Your task to perform on an android device: Open settings Image 0: 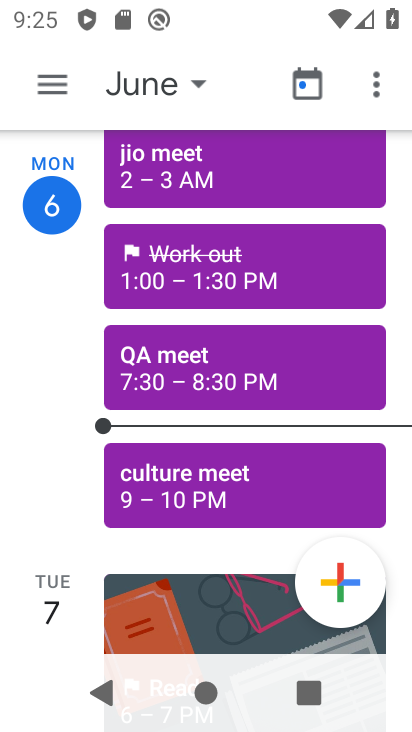
Step 0: press home button
Your task to perform on an android device: Open settings Image 1: 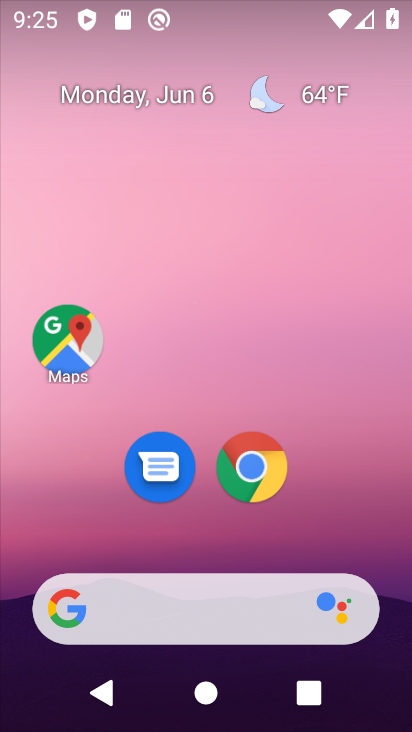
Step 1: drag from (210, 572) to (336, 50)
Your task to perform on an android device: Open settings Image 2: 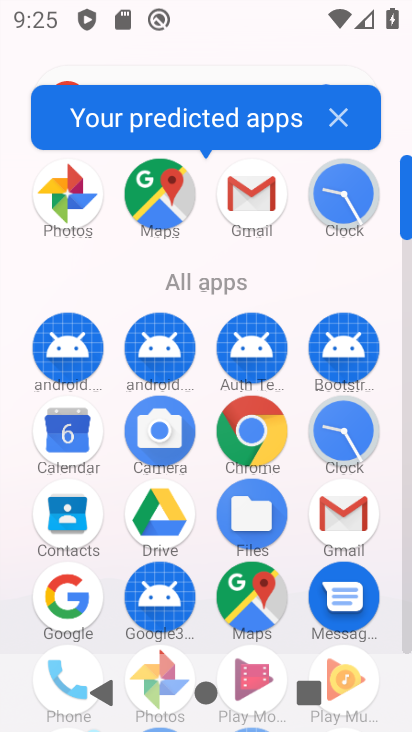
Step 2: drag from (200, 563) to (284, 268)
Your task to perform on an android device: Open settings Image 3: 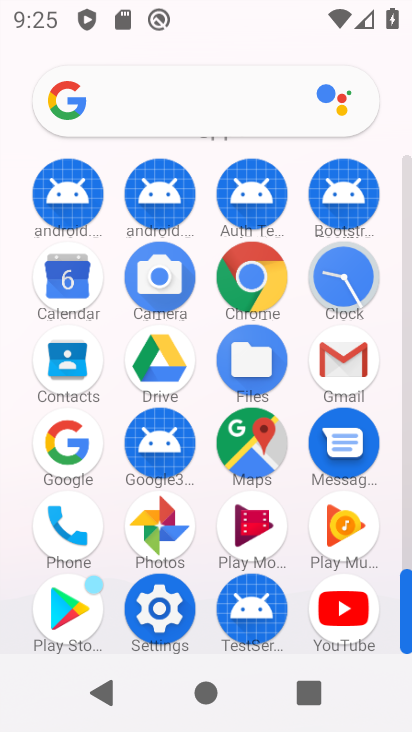
Step 3: click (161, 635)
Your task to perform on an android device: Open settings Image 4: 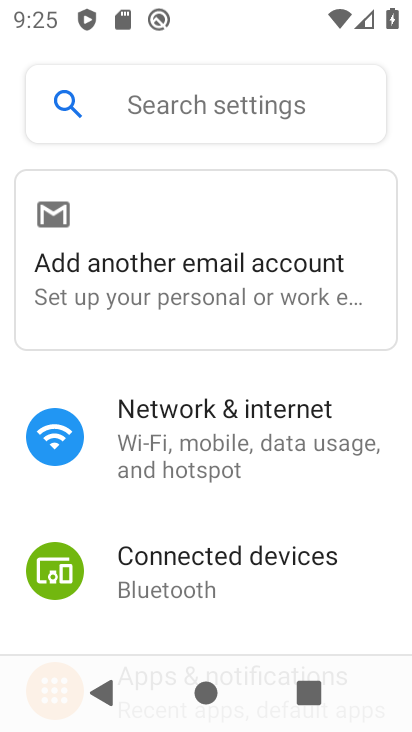
Step 4: task complete